Your task to perform on an android device: see creations saved in the google photos Image 0: 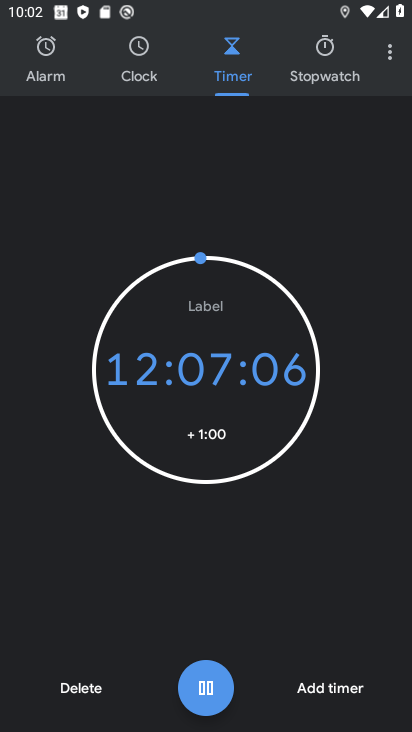
Step 0: press home button
Your task to perform on an android device: see creations saved in the google photos Image 1: 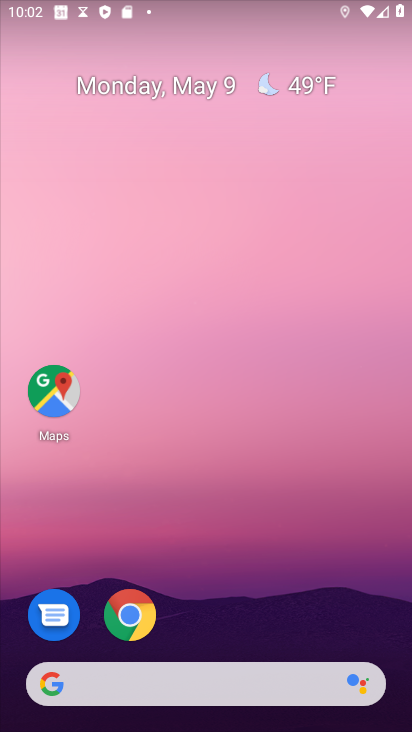
Step 1: drag from (269, 562) to (269, 121)
Your task to perform on an android device: see creations saved in the google photos Image 2: 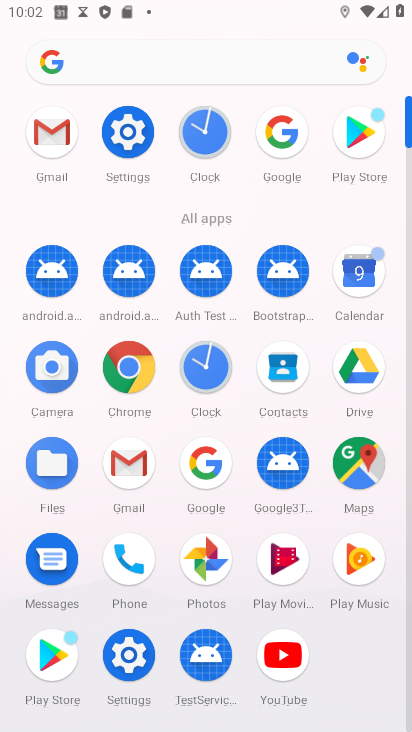
Step 2: click (222, 558)
Your task to perform on an android device: see creations saved in the google photos Image 3: 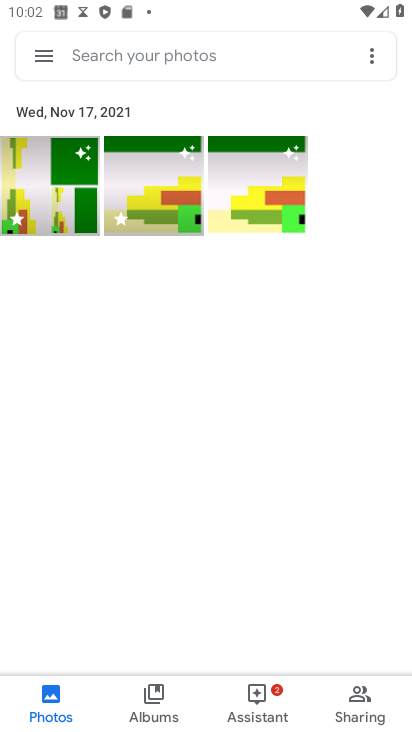
Step 3: click (114, 62)
Your task to perform on an android device: see creations saved in the google photos Image 4: 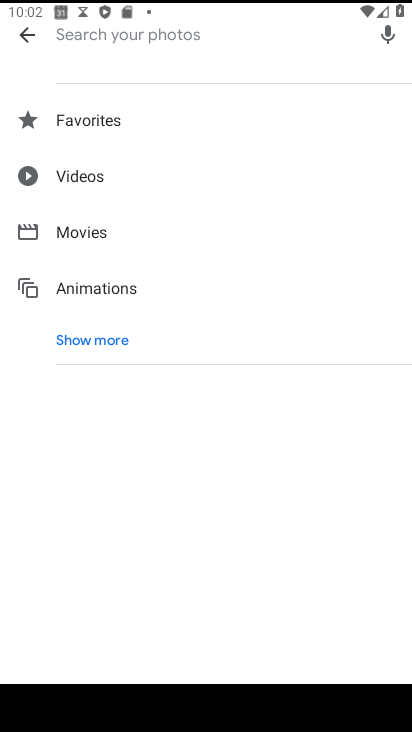
Step 4: click (105, 335)
Your task to perform on an android device: see creations saved in the google photos Image 5: 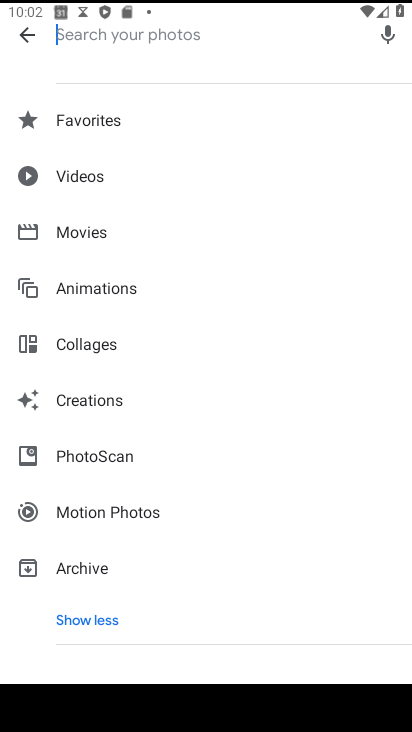
Step 5: click (123, 412)
Your task to perform on an android device: see creations saved in the google photos Image 6: 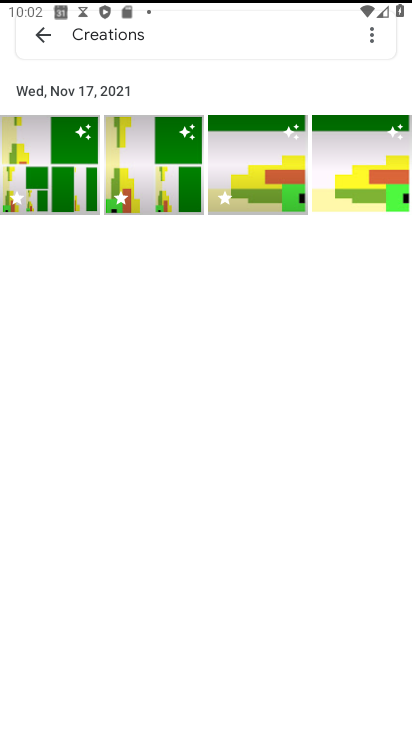
Step 6: task complete